Your task to perform on an android device: toggle location history Image 0: 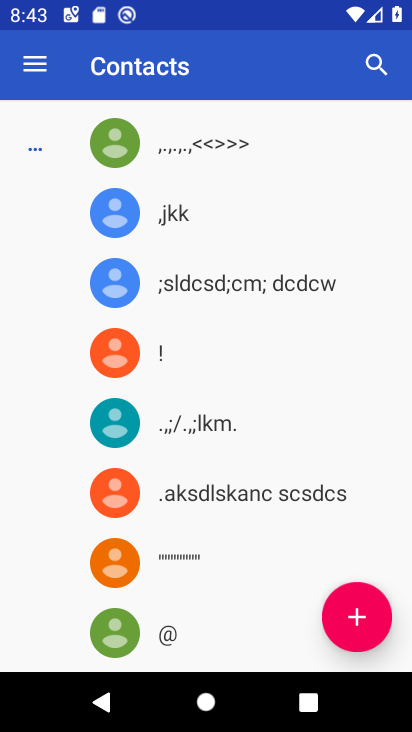
Step 0: press home button
Your task to perform on an android device: toggle location history Image 1: 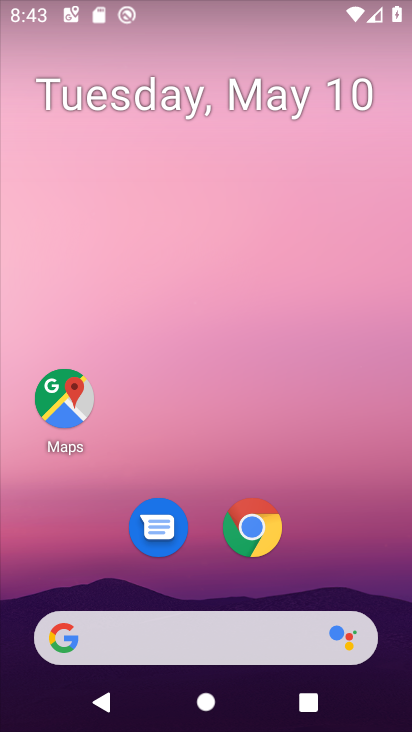
Step 1: drag from (326, 507) to (140, 153)
Your task to perform on an android device: toggle location history Image 2: 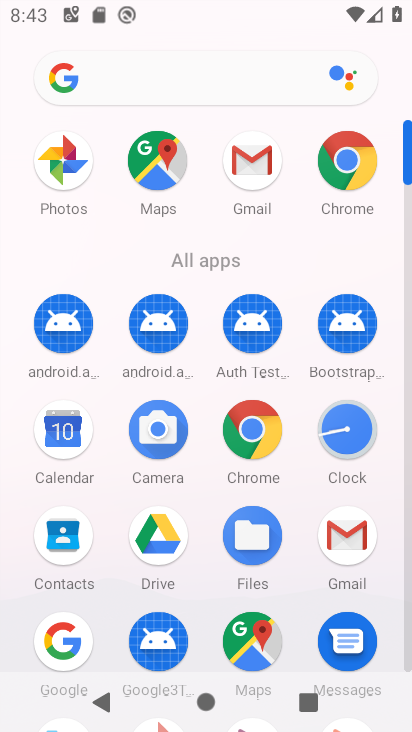
Step 2: drag from (200, 557) to (174, 195)
Your task to perform on an android device: toggle location history Image 3: 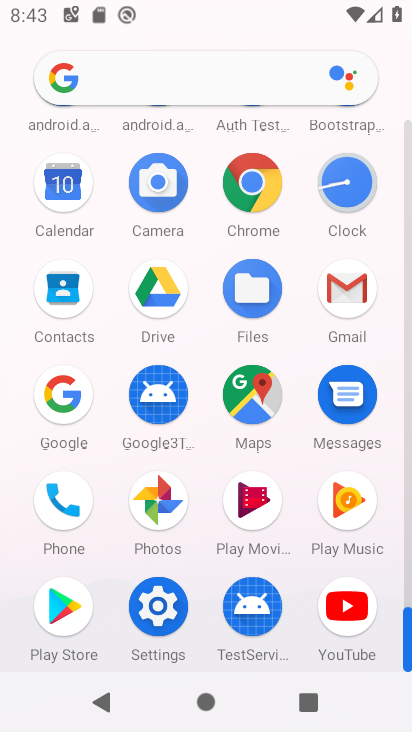
Step 3: click (164, 623)
Your task to perform on an android device: toggle location history Image 4: 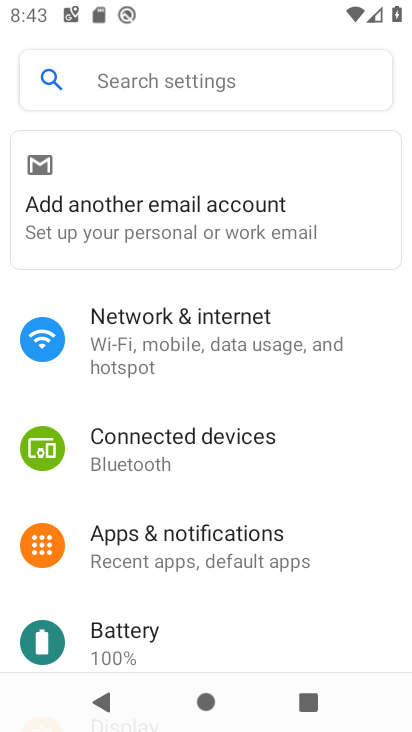
Step 4: drag from (183, 637) to (160, 228)
Your task to perform on an android device: toggle location history Image 5: 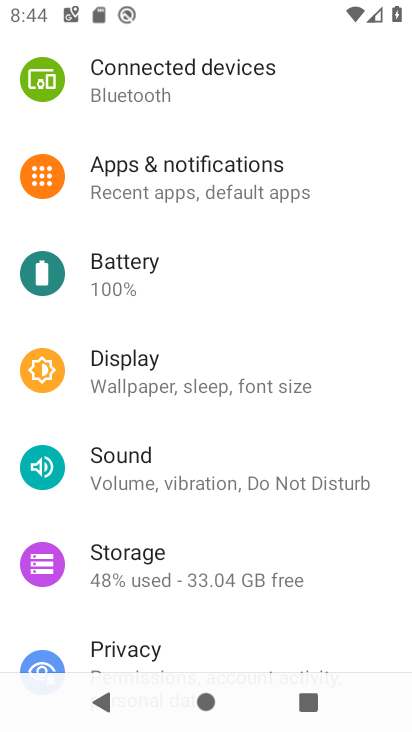
Step 5: drag from (237, 608) to (226, 319)
Your task to perform on an android device: toggle location history Image 6: 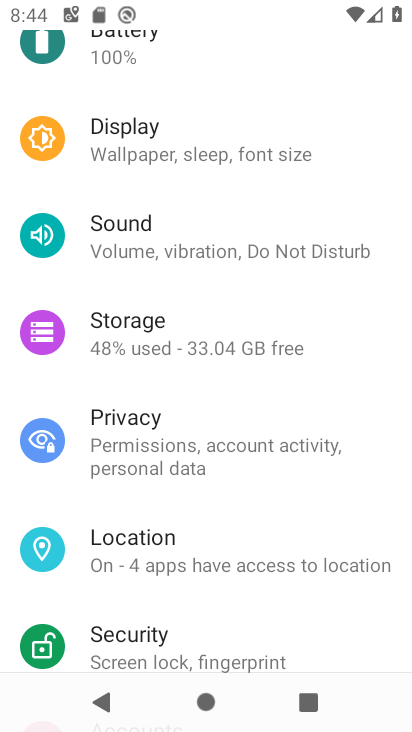
Step 6: click (188, 532)
Your task to perform on an android device: toggle location history Image 7: 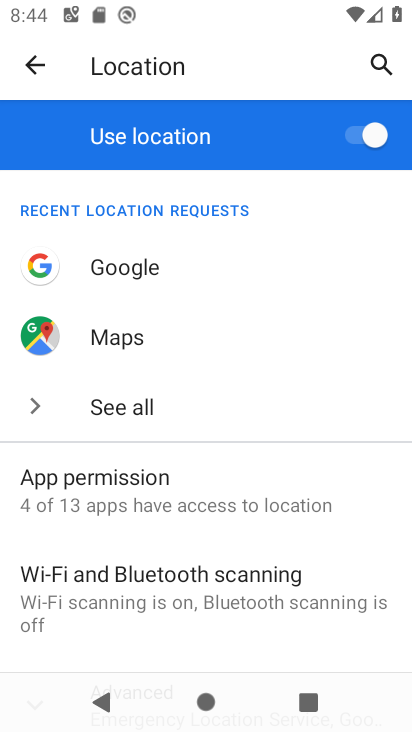
Step 7: drag from (209, 625) to (193, 393)
Your task to perform on an android device: toggle location history Image 8: 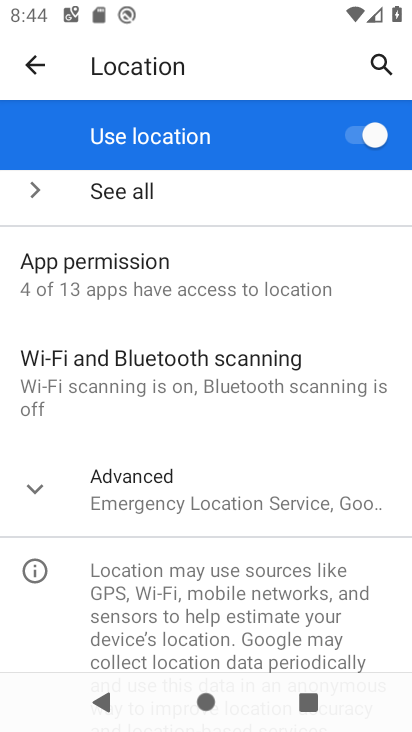
Step 8: click (184, 490)
Your task to perform on an android device: toggle location history Image 9: 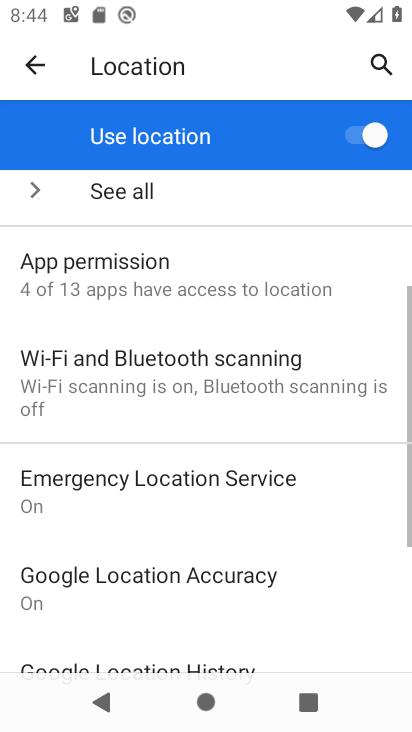
Step 9: drag from (182, 584) to (167, 364)
Your task to perform on an android device: toggle location history Image 10: 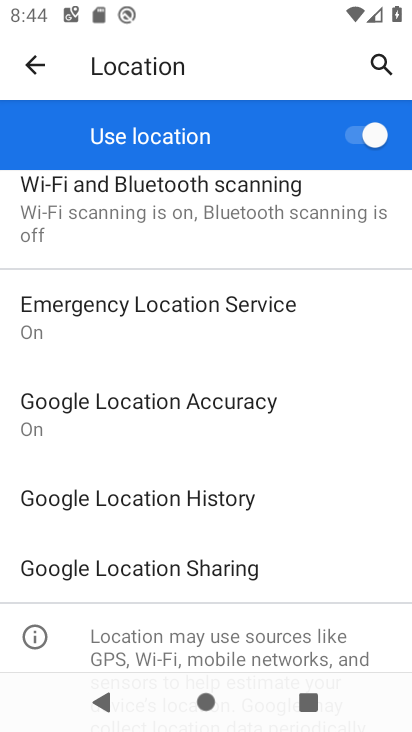
Step 10: click (129, 495)
Your task to perform on an android device: toggle location history Image 11: 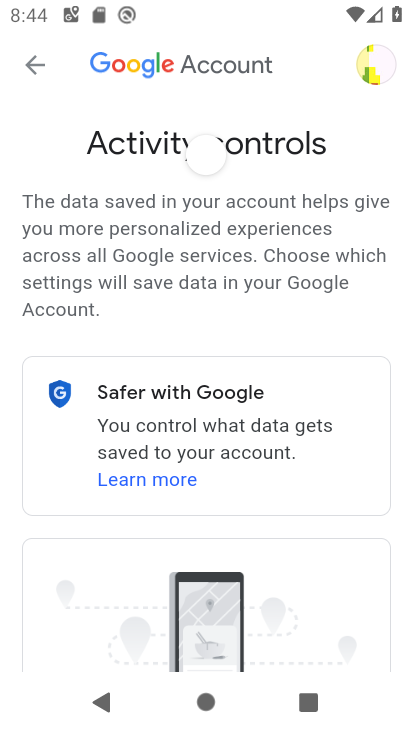
Step 11: drag from (236, 647) to (167, 286)
Your task to perform on an android device: toggle location history Image 12: 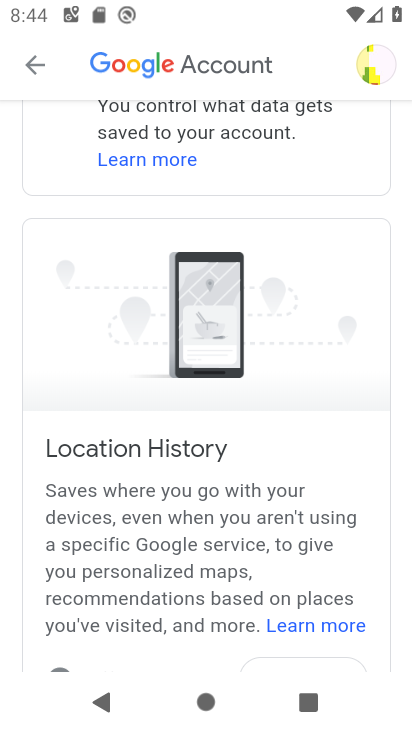
Step 12: drag from (161, 631) to (141, 378)
Your task to perform on an android device: toggle location history Image 13: 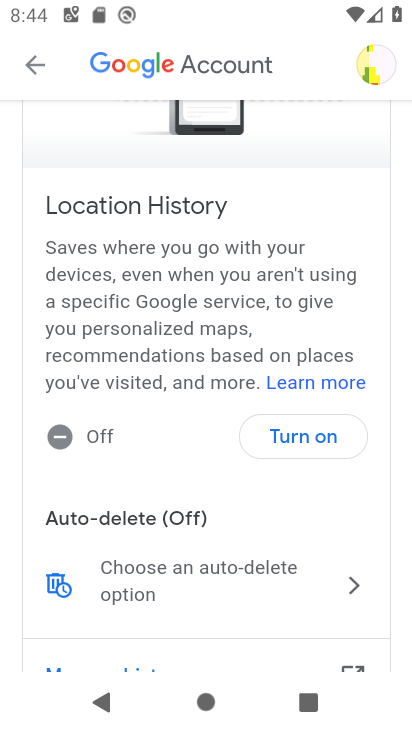
Step 13: click (273, 430)
Your task to perform on an android device: toggle location history Image 14: 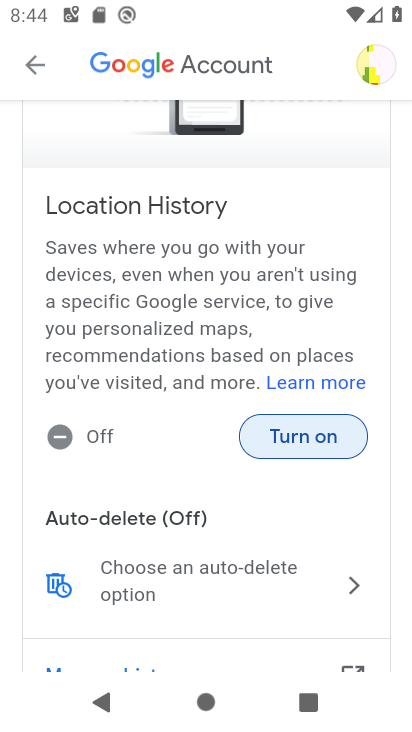
Step 14: click (307, 433)
Your task to perform on an android device: toggle location history Image 15: 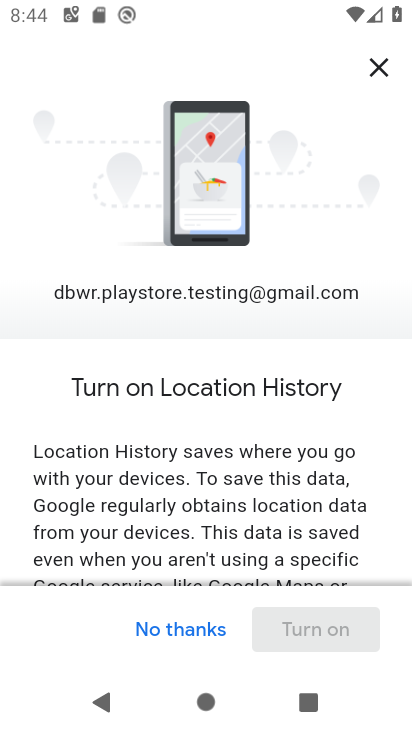
Step 15: drag from (221, 531) to (205, 177)
Your task to perform on an android device: toggle location history Image 16: 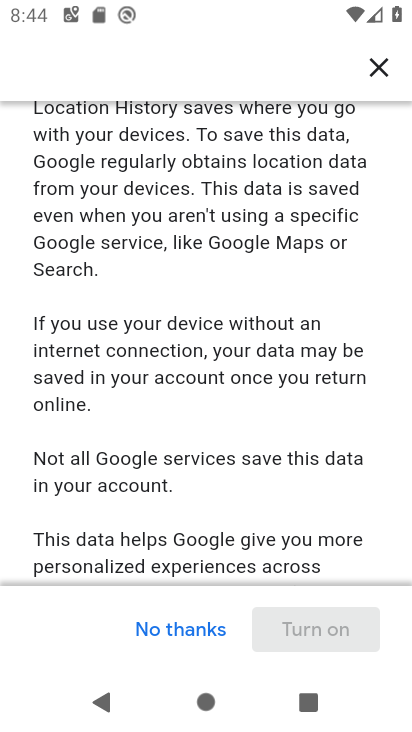
Step 16: drag from (220, 498) to (224, 186)
Your task to perform on an android device: toggle location history Image 17: 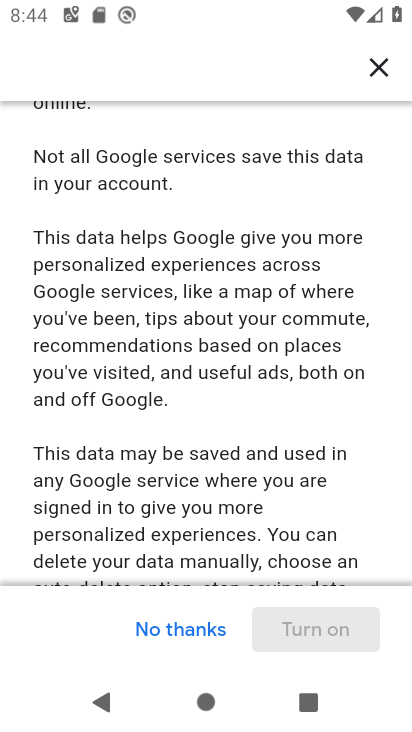
Step 17: drag from (269, 540) to (255, 271)
Your task to perform on an android device: toggle location history Image 18: 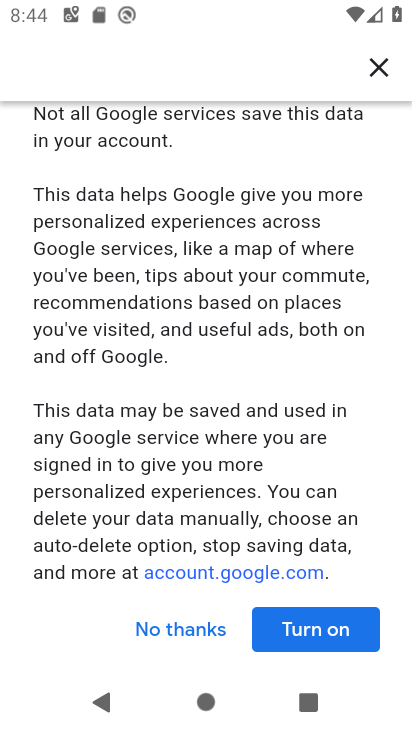
Step 18: click (290, 626)
Your task to perform on an android device: toggle location history Image 19: 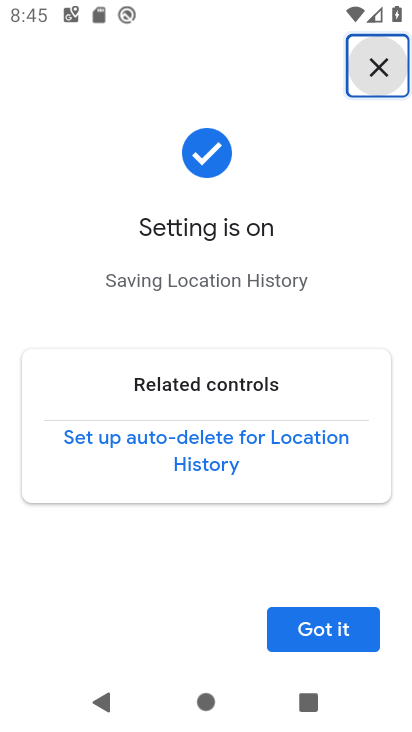
Step 19: task complete